Your task to perform on an android device: Go to display settings Image 0: 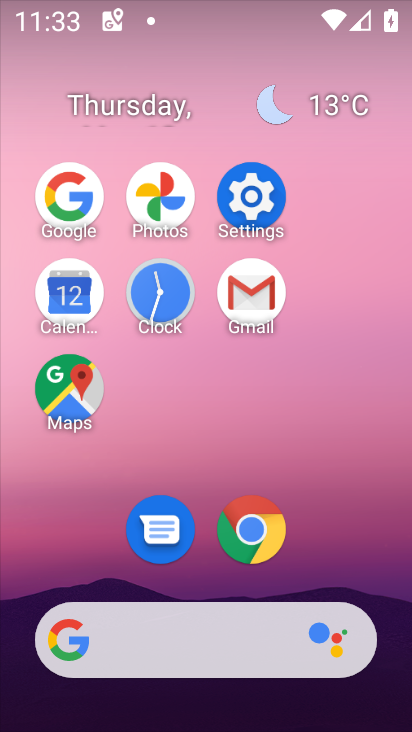
Step 0: click (250, 207)
Your task to perform on an android device: Go to display settings Image 1: 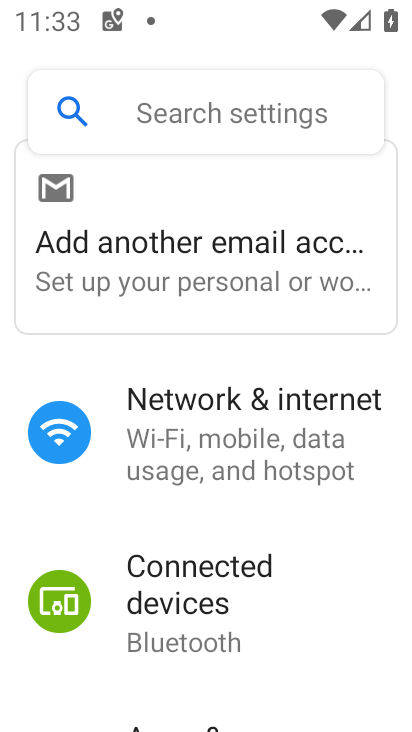
Step 1: drag from (240, 615) to (273, 227)
Your task to perform on an android device: Go to display settings Image 2: 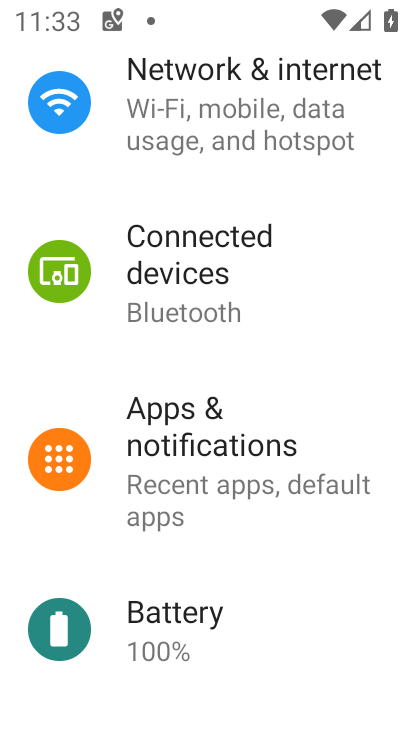
Step 2: drag from (249, 606) to (266, 218)
Your task to perform on an android device: Go to display settings Image 3: 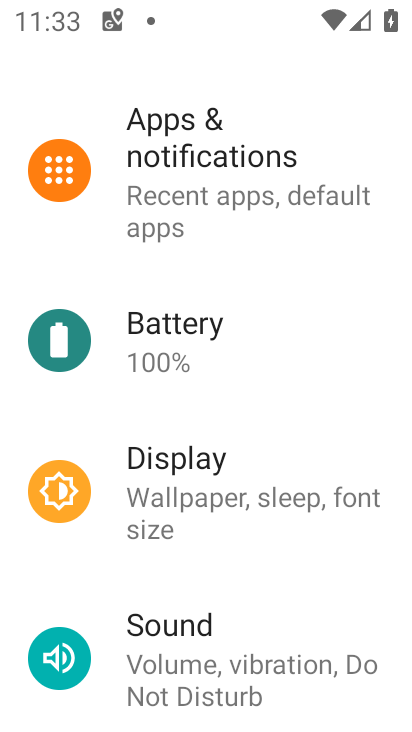
Step 3: click (255, 477)
Your task to perform on an android device: Go to display settings Image 4: 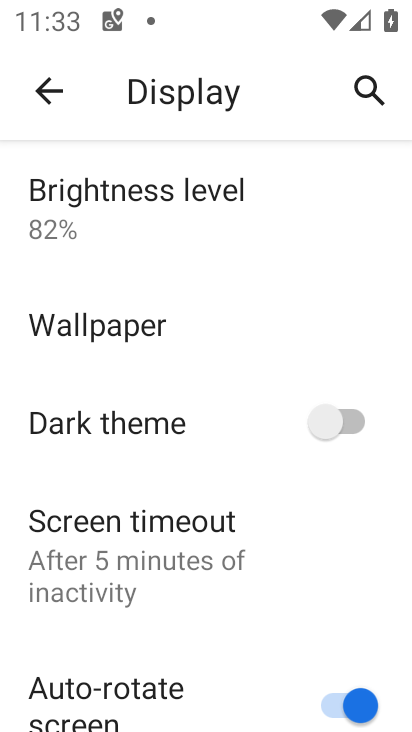
Step 4: task complete